Your task to perform on an android device: Add "razer nari" to the cart on target.com, then select checkout. Image 0: 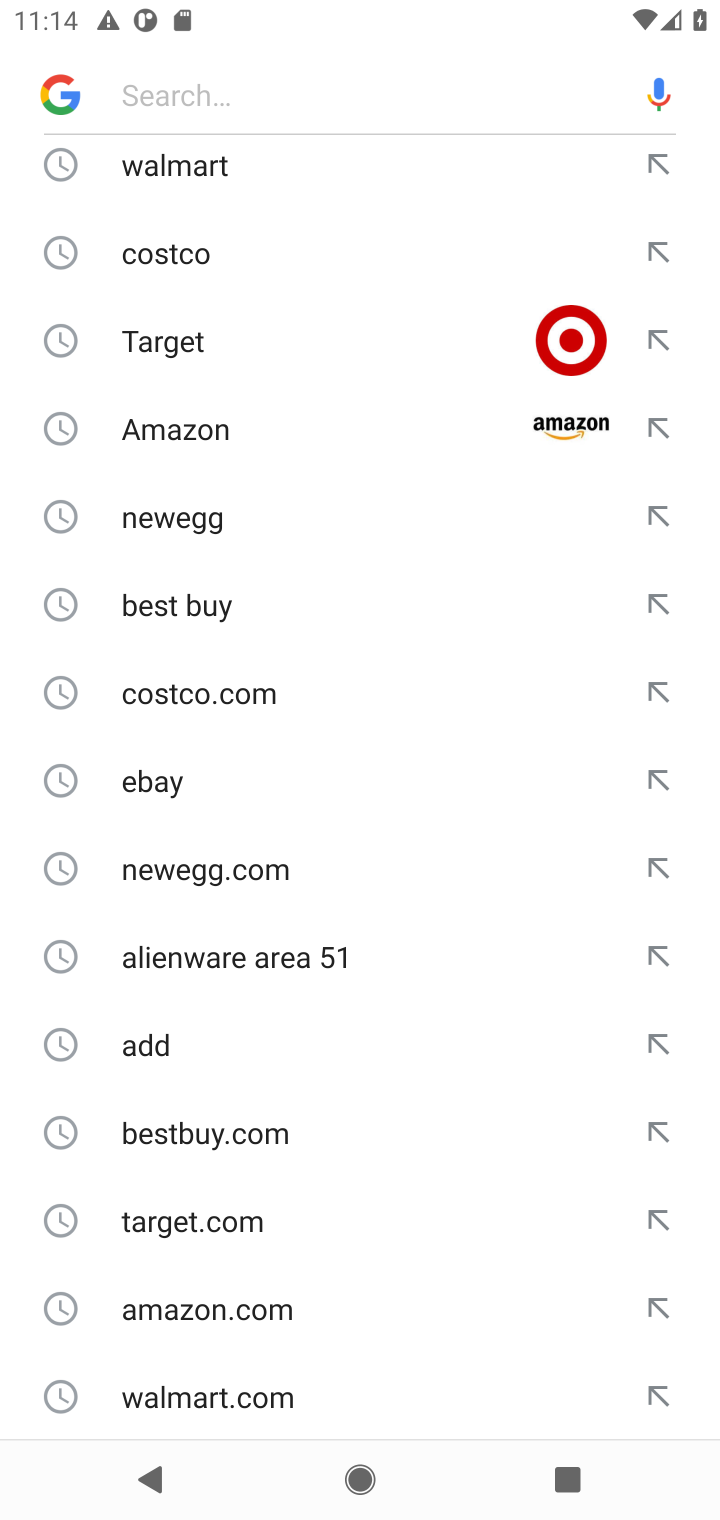
Step 0: press home button
Your task to perform on an android device: Add "razer nari" to the cart on target.com, then select checkout. Image 1: 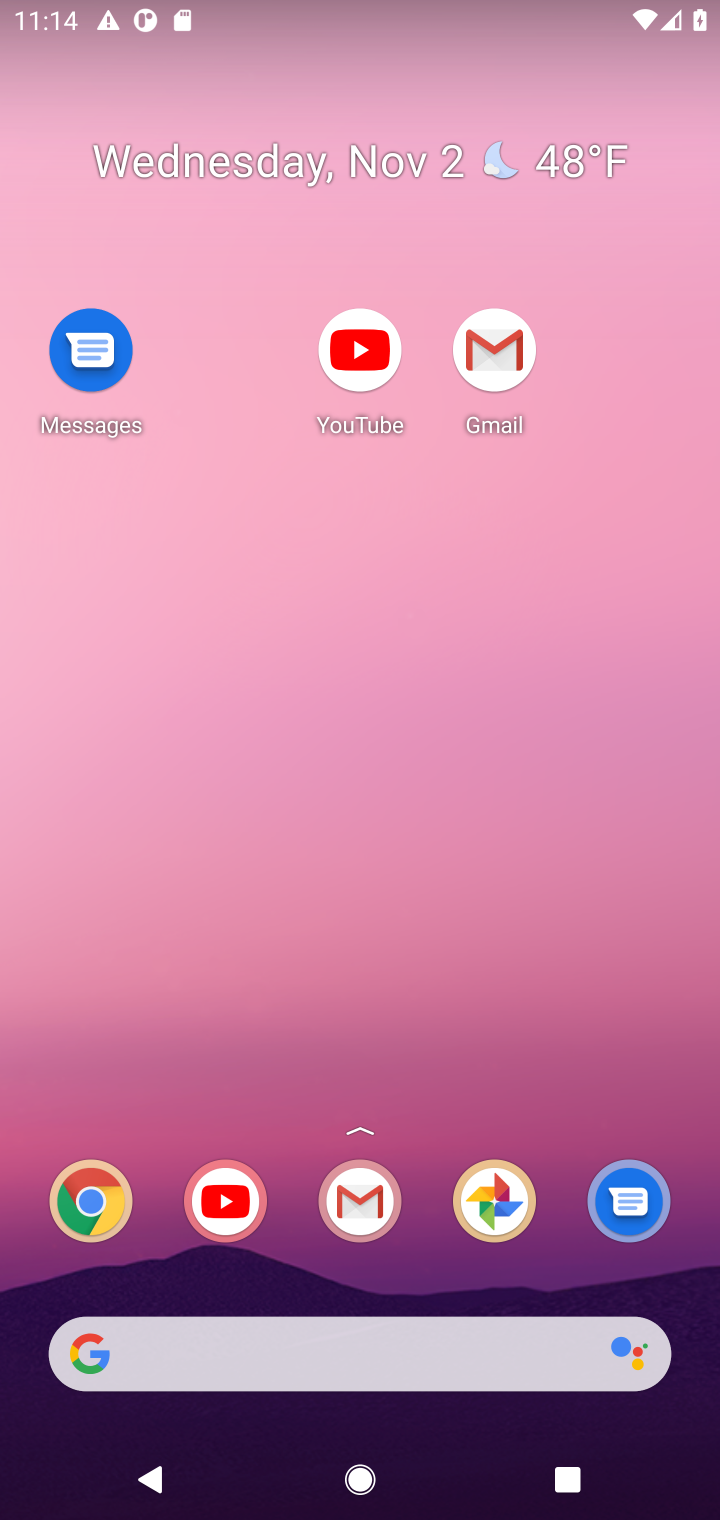
Step 1: drag from (431, 1224) to (491, 215)
Your task to perform on an android device: Add "razer nari" to the cart on target.com, then select checkout. Image 2: 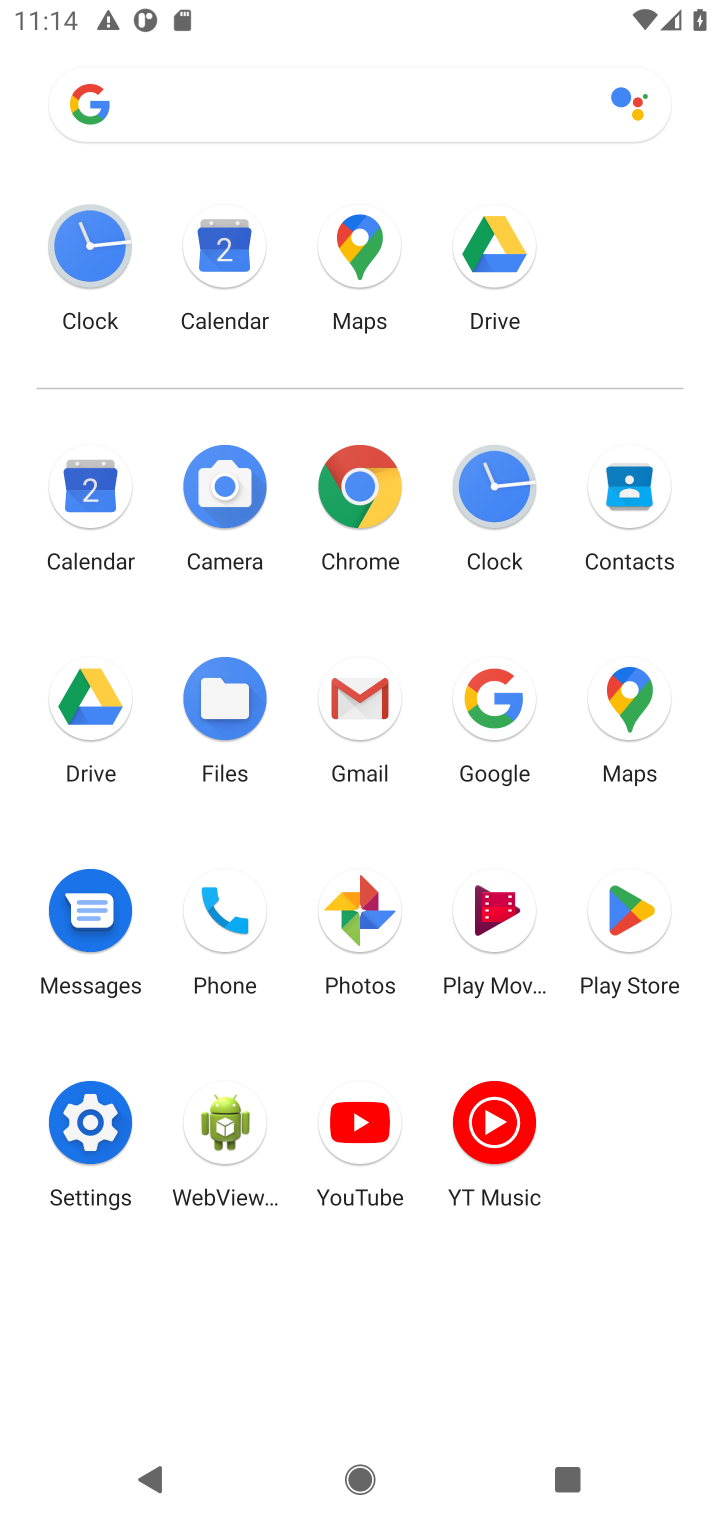
Step 2: click (372, 483)
Your task to perform on an android device: Add "razer nari" to the cart on target.com, then select checkout. Image 3: 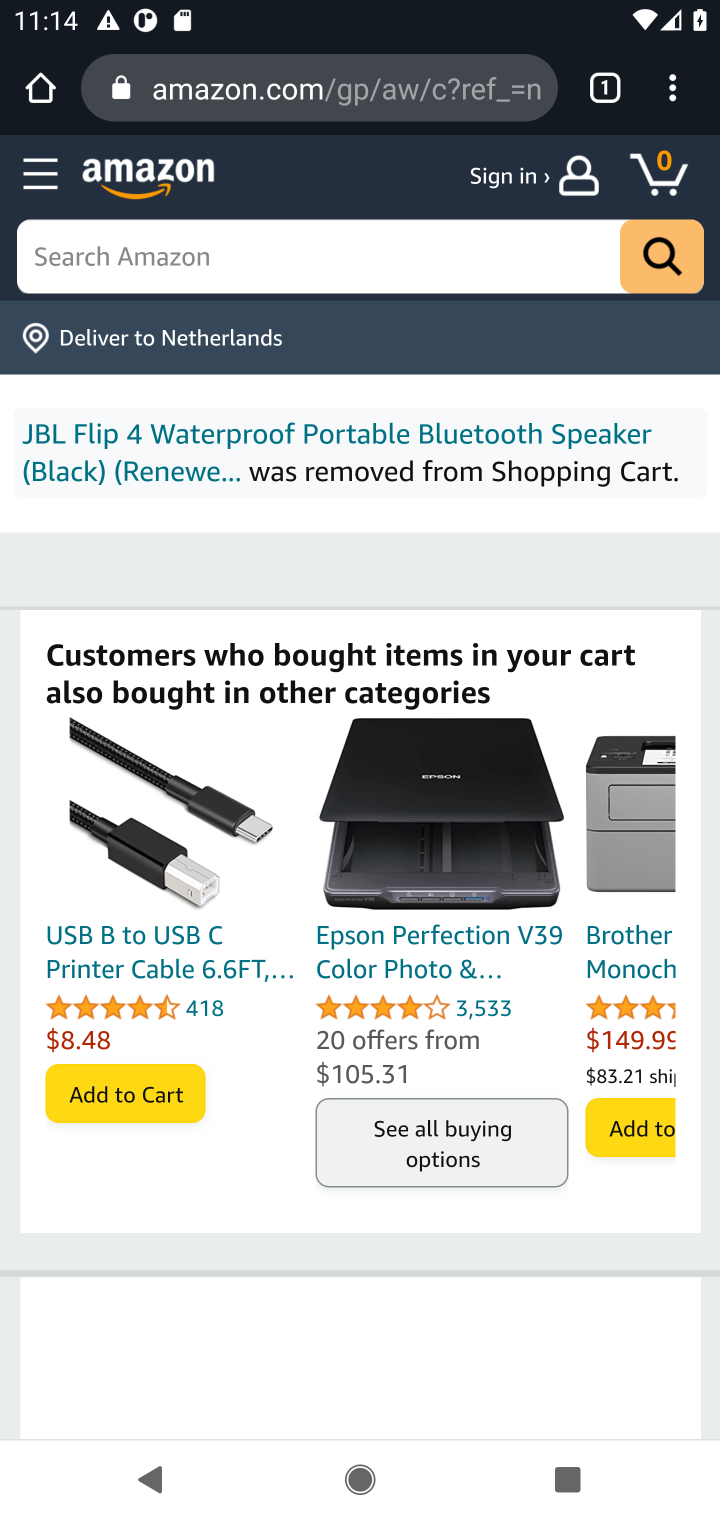
Step 3: click (373, 91)
Your task to perform on an android device: Add "razer nari" to the cart on target.com, then select checkout. Image 4: 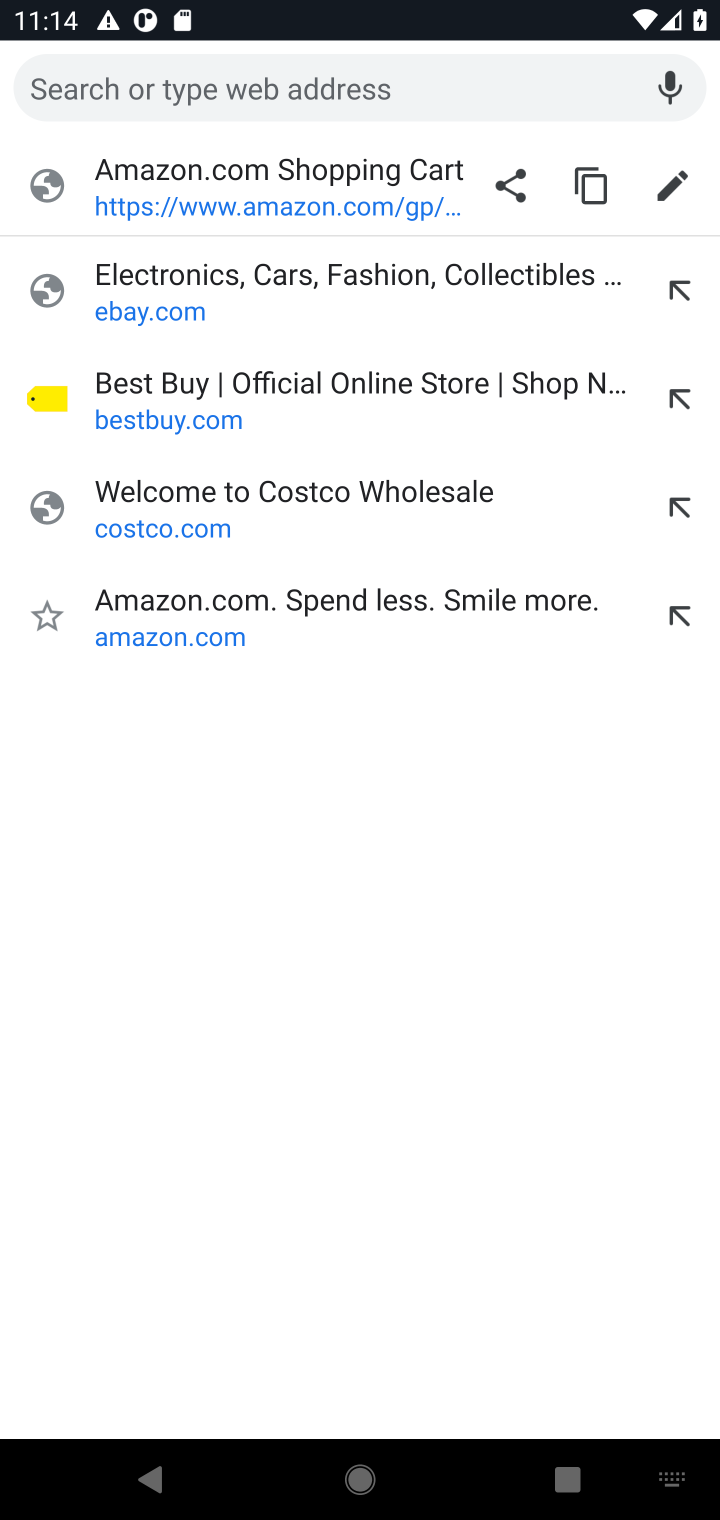
Step 4: type "target.com"
Your task to perform on an android device: Add "razer nari" to the cart on target.com, then select checkout. Image 5: 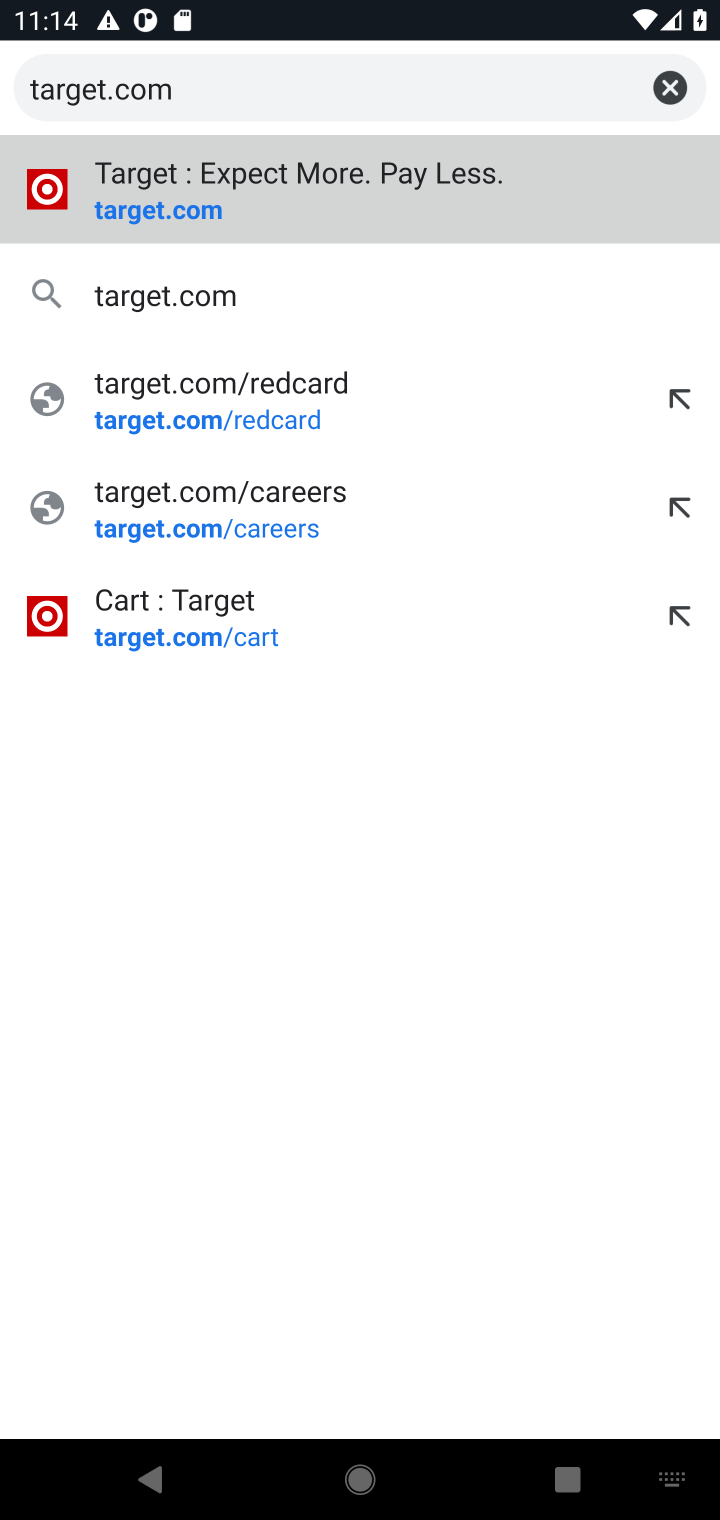
Step 5: press enter
Your task to perform on an android device: Add "razer nari" to the cart on target.com, then select checkout. Image 6: 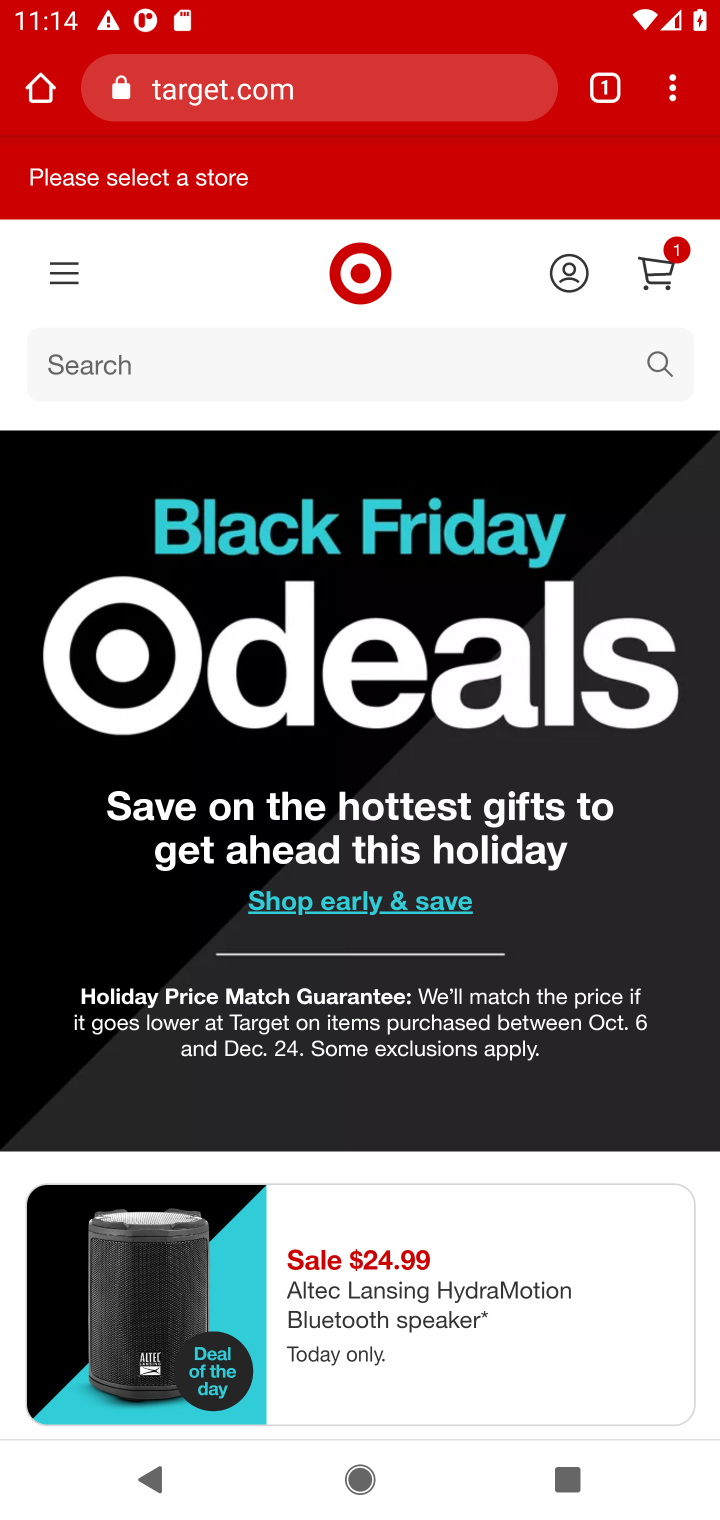
Step 6: click (258, 374)
Your task to perform on an android device: Add "razer nari" to the cart on target.com, then select checkout. Image 7: 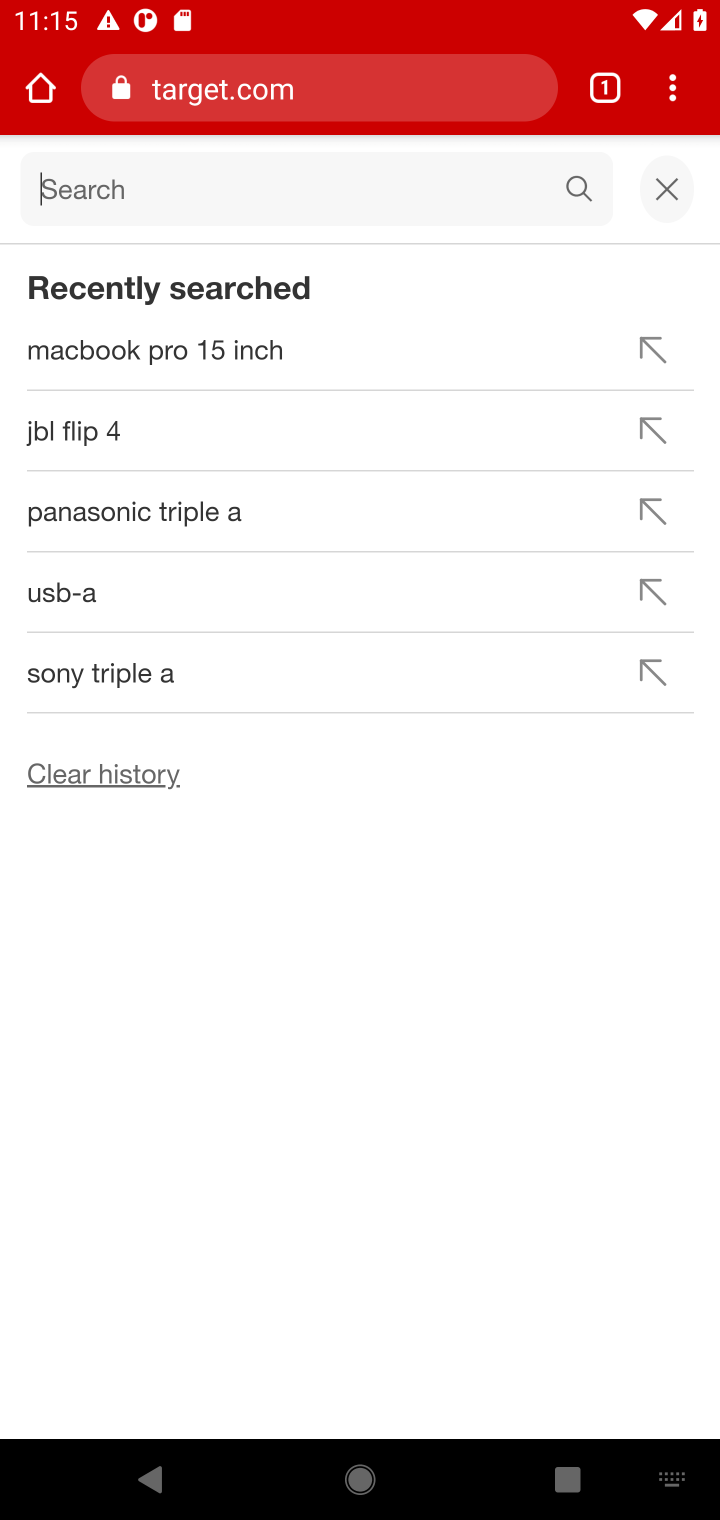
Step 7: type "razer nari"
Your task to perform on an android device: Add "razer nari" to the cart on target.com, then select checkout. Image 8: 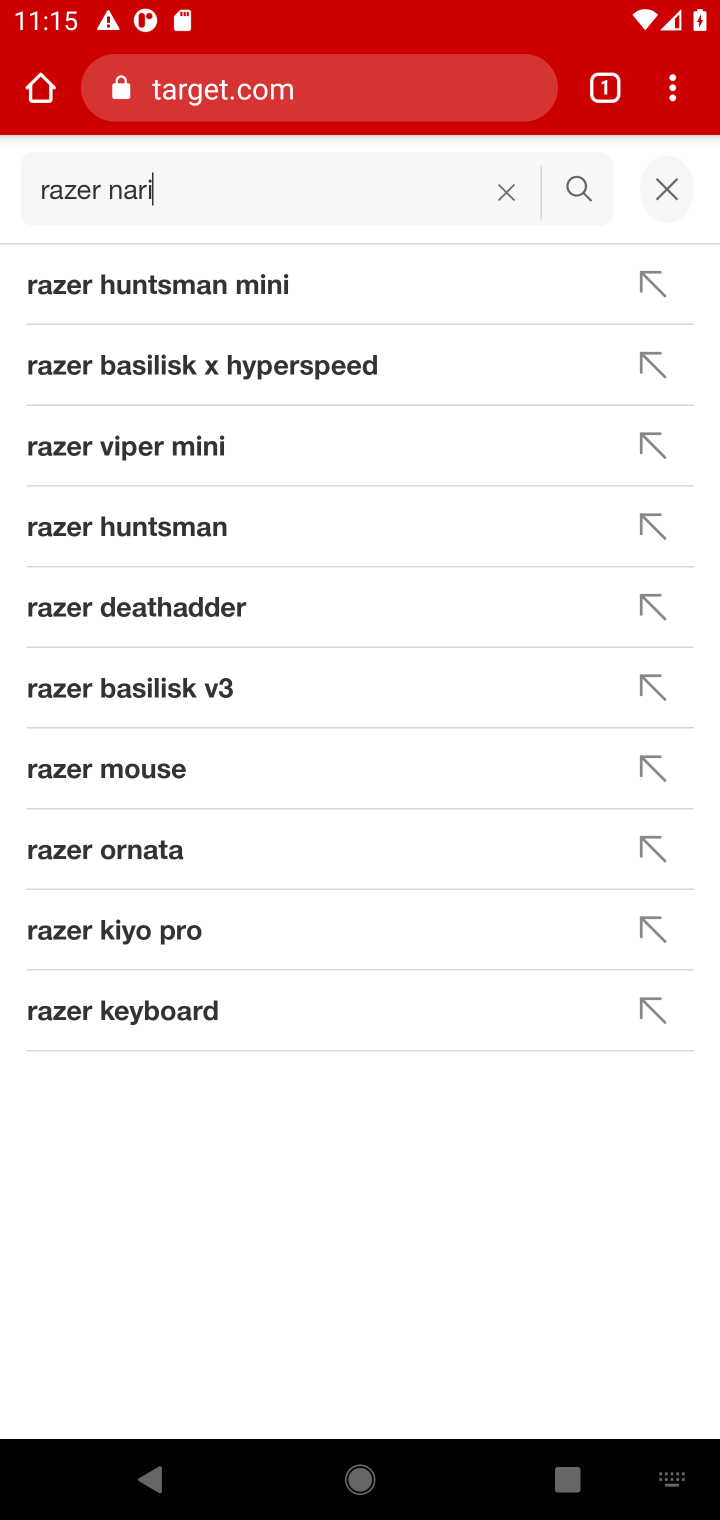
Step 8: press enter
Your task to perform on an android device: Add "razer nari" to the cart on target.com, then select checkout. Image 9: 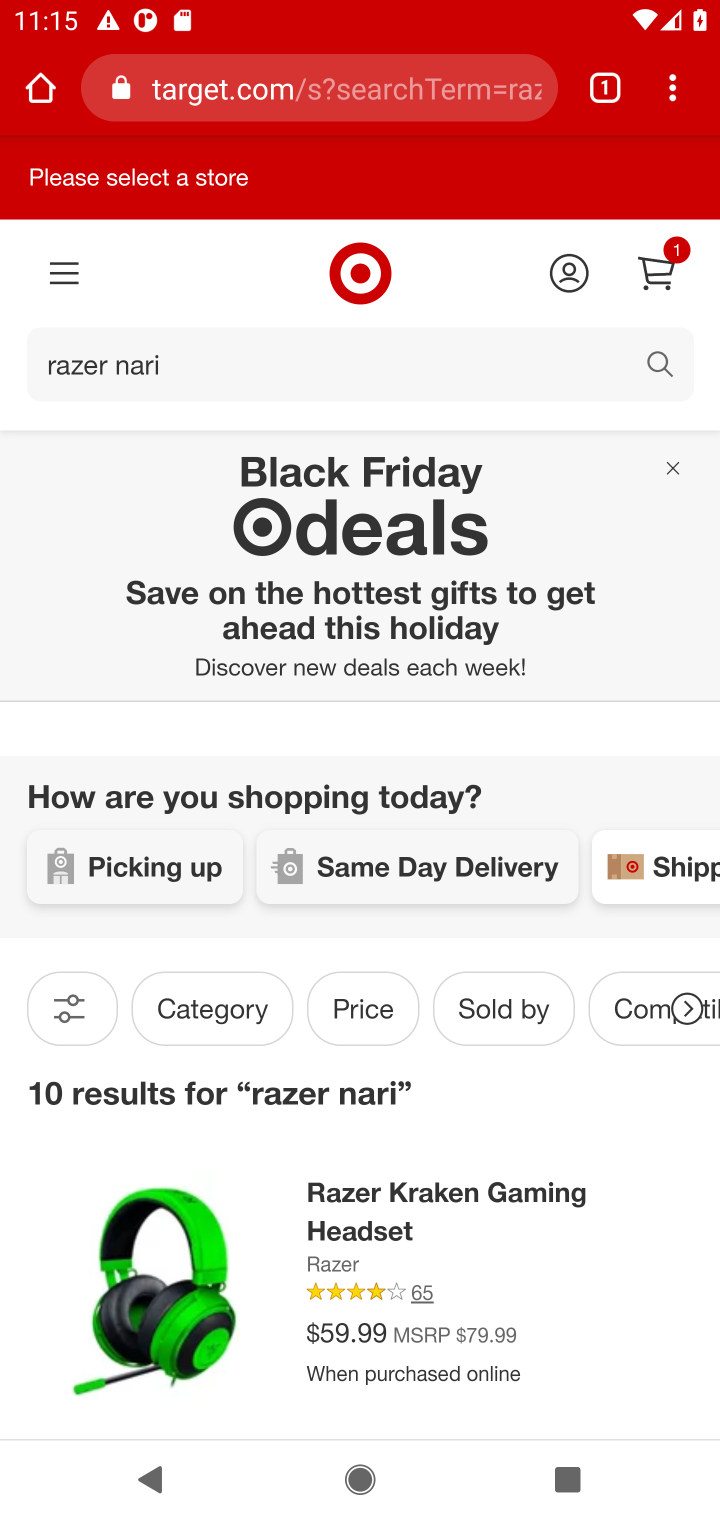
Step 9: task complete